Your task to perform on an android device: Open Yahoo.com Image 0: 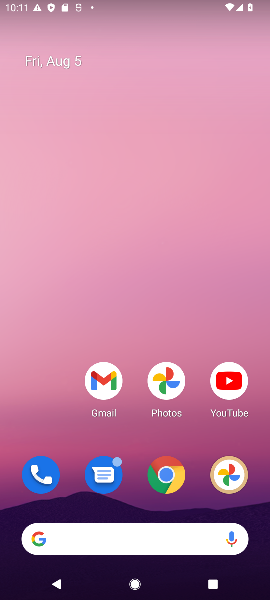
Step 0: click (161, 469)
Your task to perform on an android device: Open Yahoo.com Image 1: 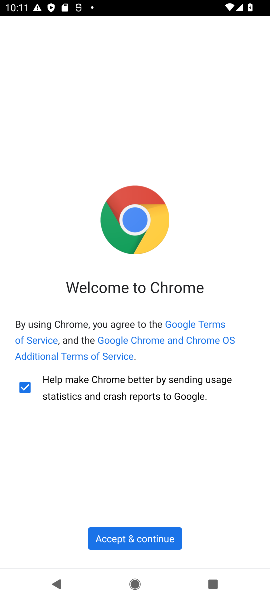
Step 1: click (127, 535)
Your task to perform on an android device: Open Yahoo.com Image 2: 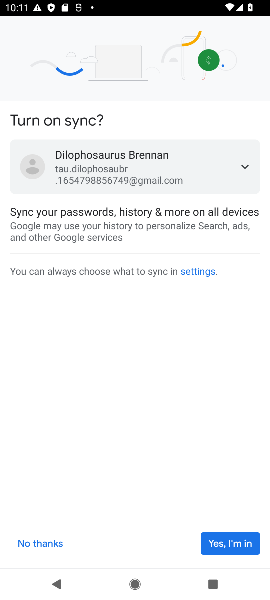
Step 2: click (233, 545)
Your task to perform on an android device: Open Yahoo.com Image 3: 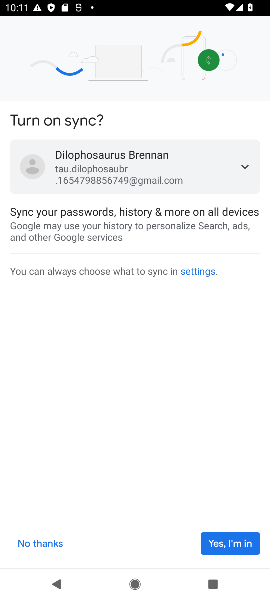
Step 3: click (231, 542)
Your task to perform on an android device: Open Yahoo.com Image 4: 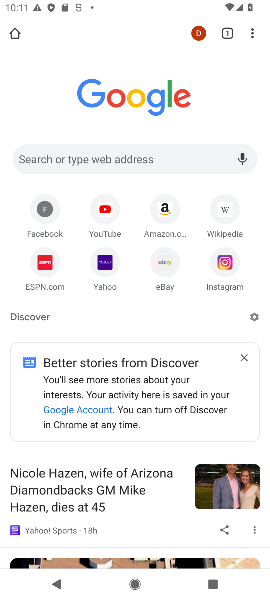
Step 4: click (113, 277)
Your task to perform on an android device: Open Yahoo.com Image 5: 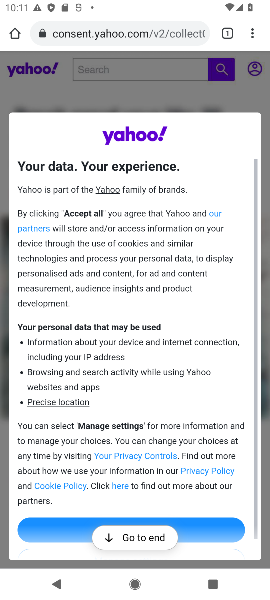
Step 5: task complete